Your task to perform on an android device: Open accessibility settings Image 0: 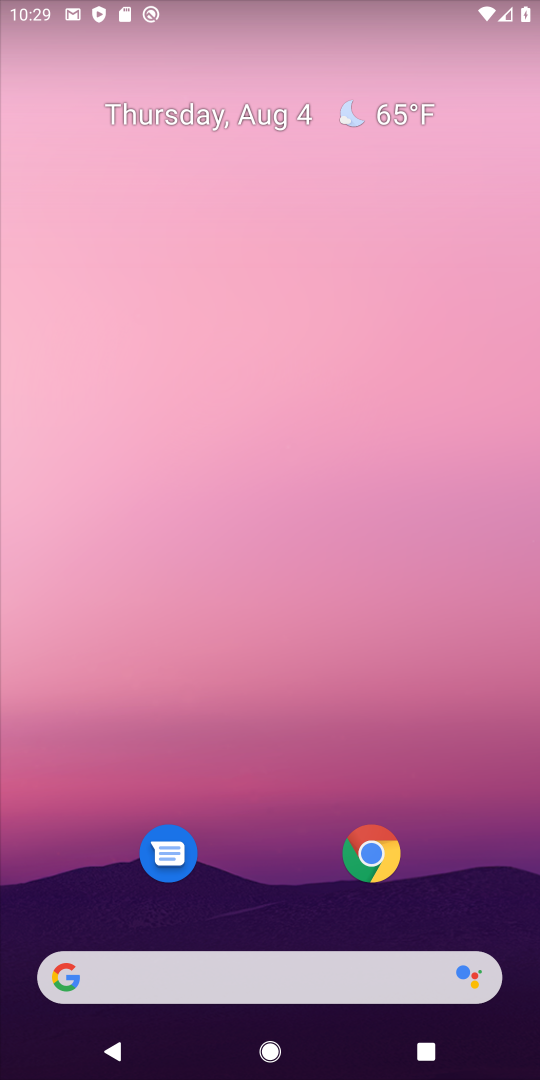
Step 0: drag from (325, 950) to (233, 152)
Your task to perform on an android device: Open accessibility settings Image 1: 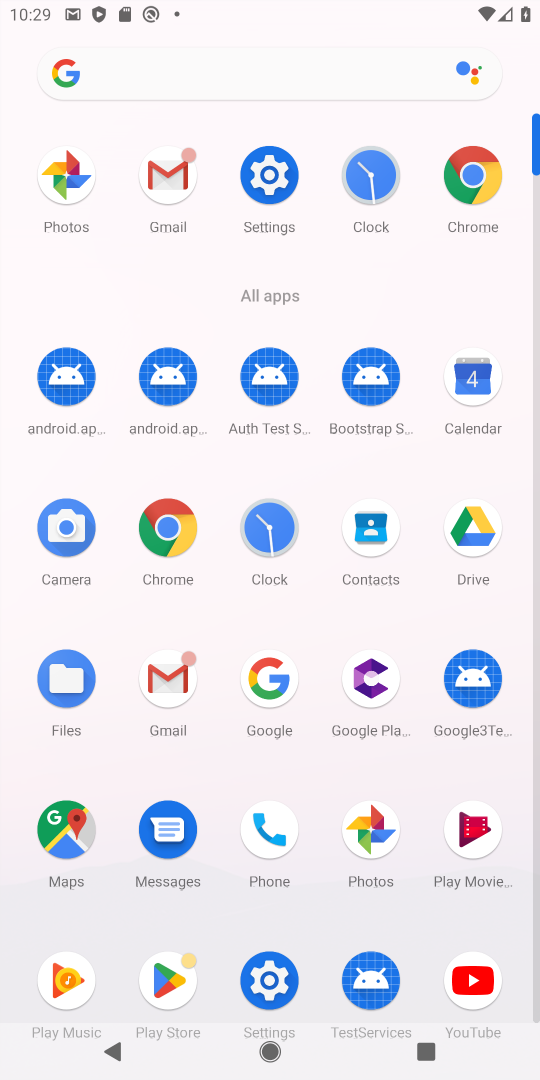
Step 1: click (270, 970)
Your task to perform on an android device: Open accessibility settings Image 2: 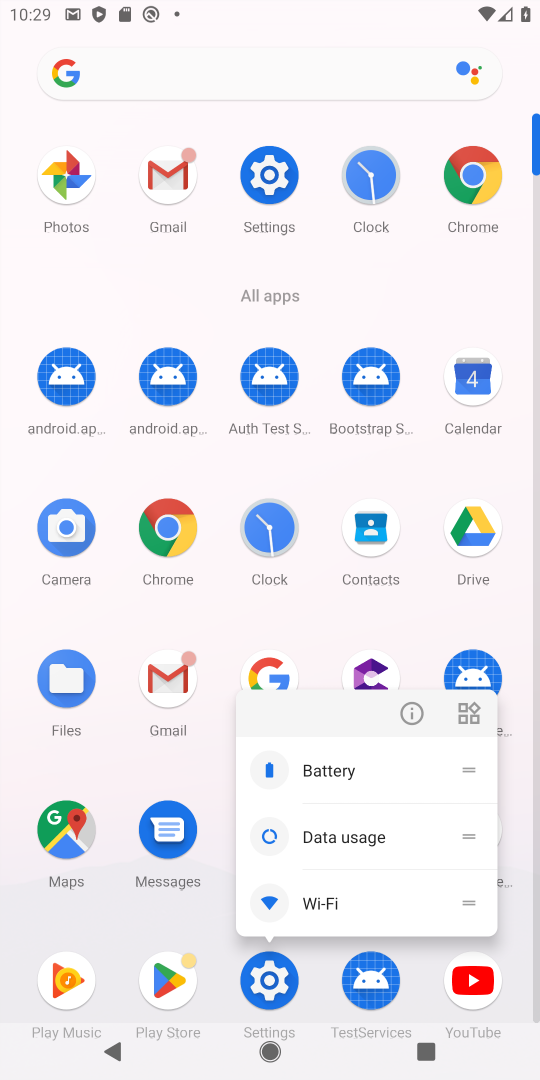
Step 2: click (293, 969)
Your task to perform on an android device: Open accessibility settings Image 3: 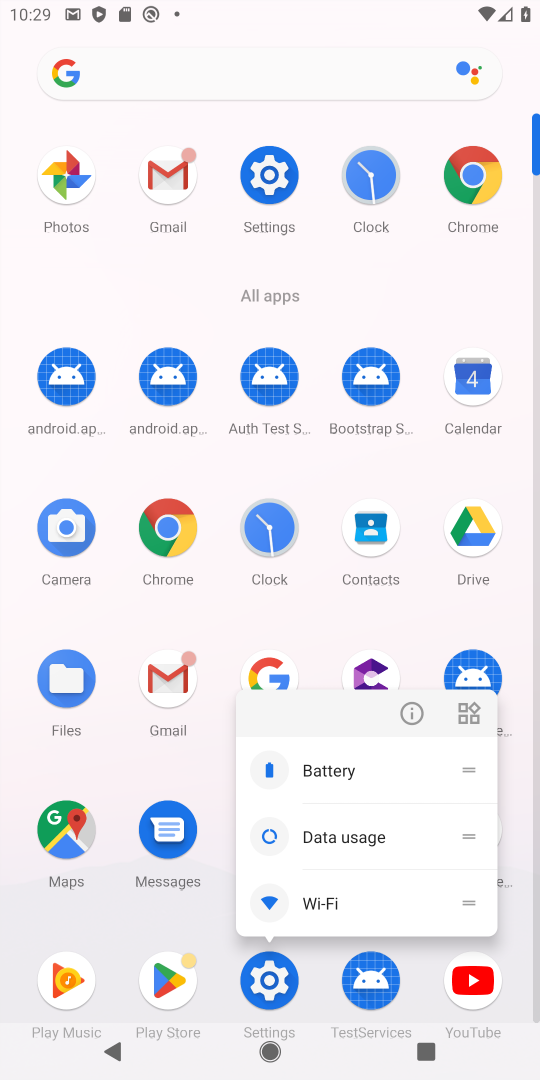
Step 3: click (258, 979)
Your task to perform on an android device: Open accessibility settings Image 4: 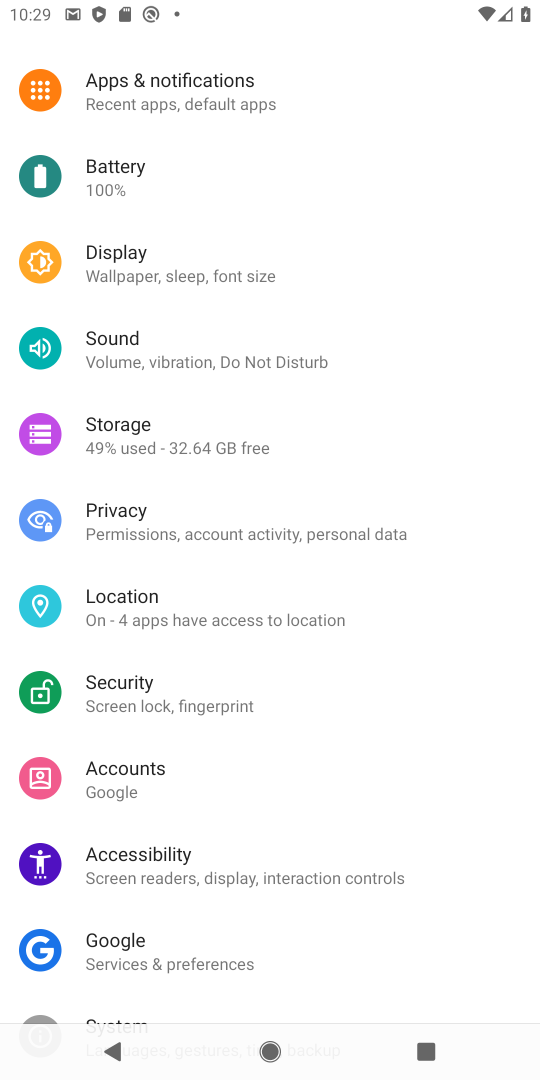
Step 4: click (215, 866)
Your task to perform on an android device: Open accessibility settings Image 5: 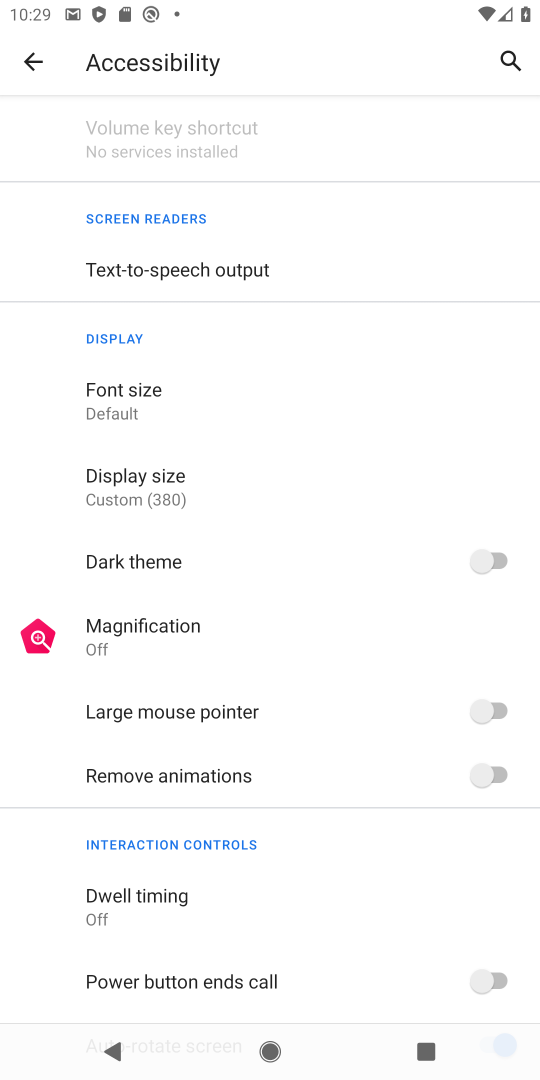
Step 5: task complete